Your task to perform on an android device: turn on notifications settings in the gmail app Image 0: 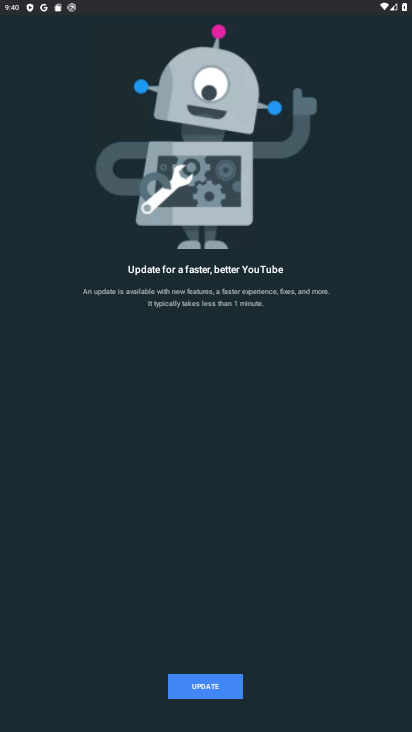
Step 0: press home button
Your task to perform on an android device: turn on notifications settings in the gmail app Image 1: 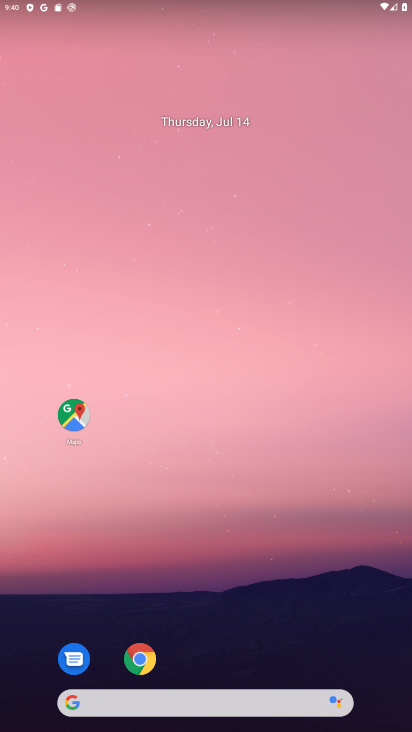
Step 1: drag from (262, 573) to (273, 90)
Your task to perform on an android device: turn on notifications settings in the gmail app Image 2: 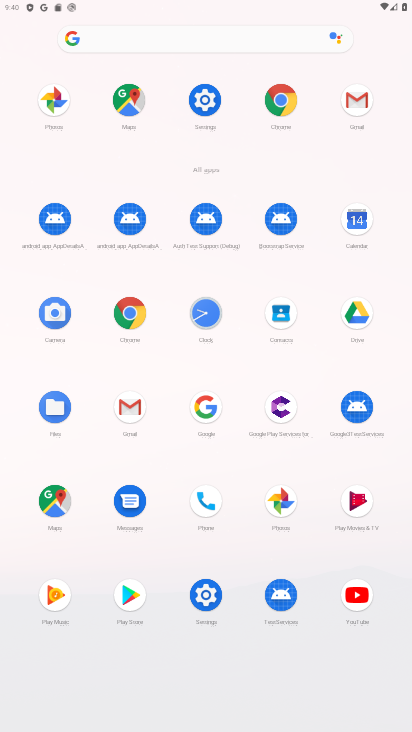
Step 2: click (357, 102)
Your task to perform on an android device: turn on notifications settings in the gmail app Image 3: 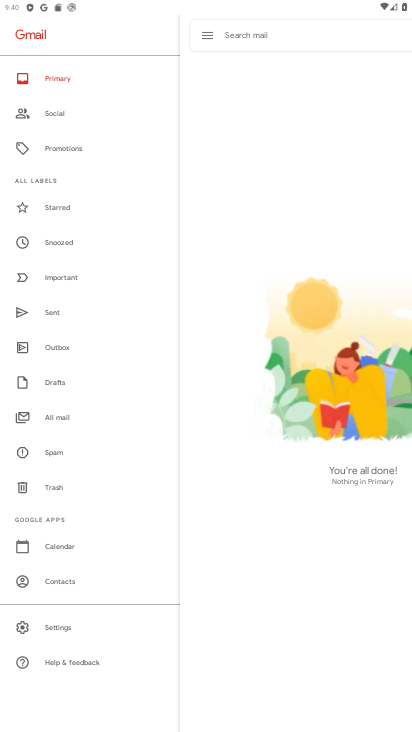
Step 3: click (71, 623)
Your task to perform on an android device: turn on notifications settings in the gmail app Image 4: 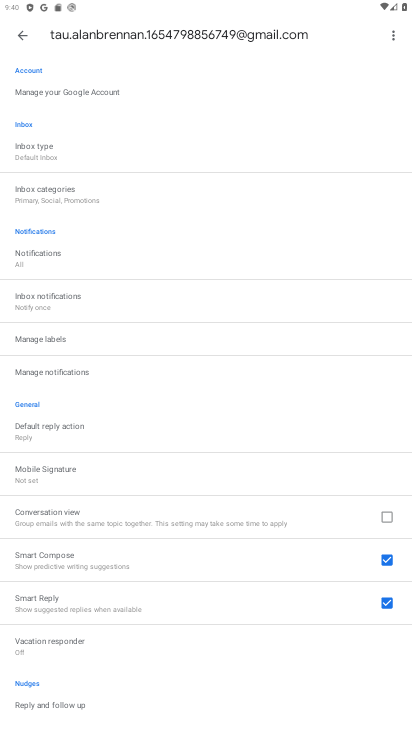
Step 4: drag from (204, 146) to (175, 559)
Your task to perform on an android device: turn on notifications settings in the gmail app Image 5: 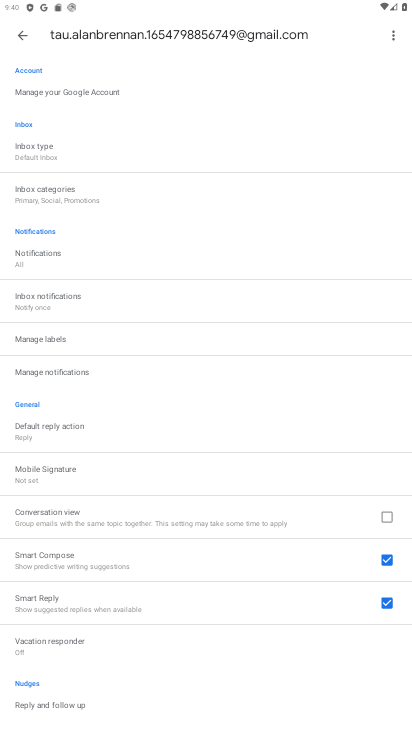
Step 5: click (49, 370)
Your task to perform on an android device: turn on notifications settings in the gmail app Image 6: 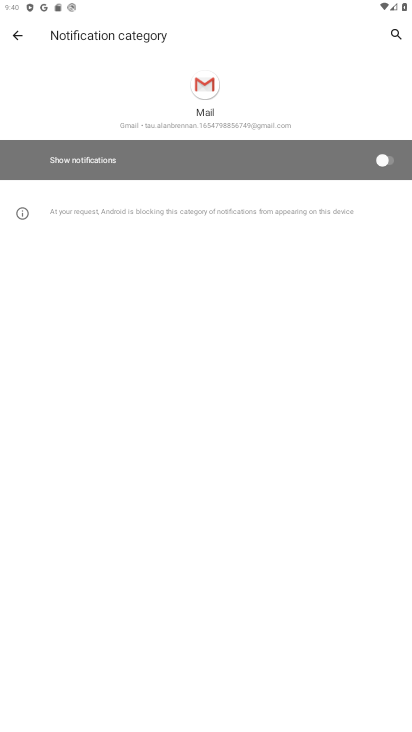
Step 6: click (388, 153)
Your task to perform on an android device: turn on notifications settings in the gmail app Image 7: 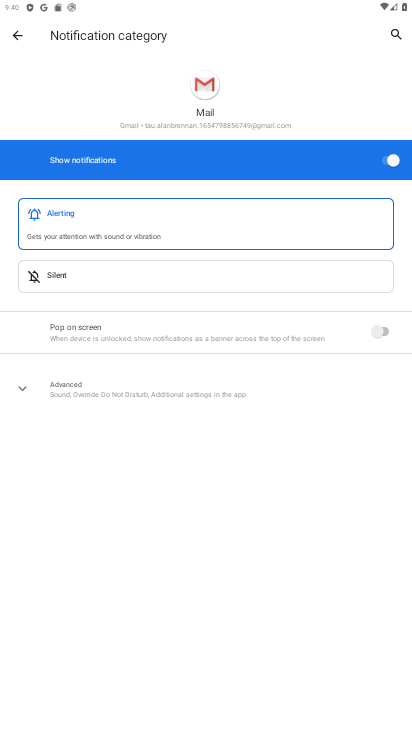
Step 7: task complete